Your task to perform on an android device: visit the assistant section in the google photos Image 0: 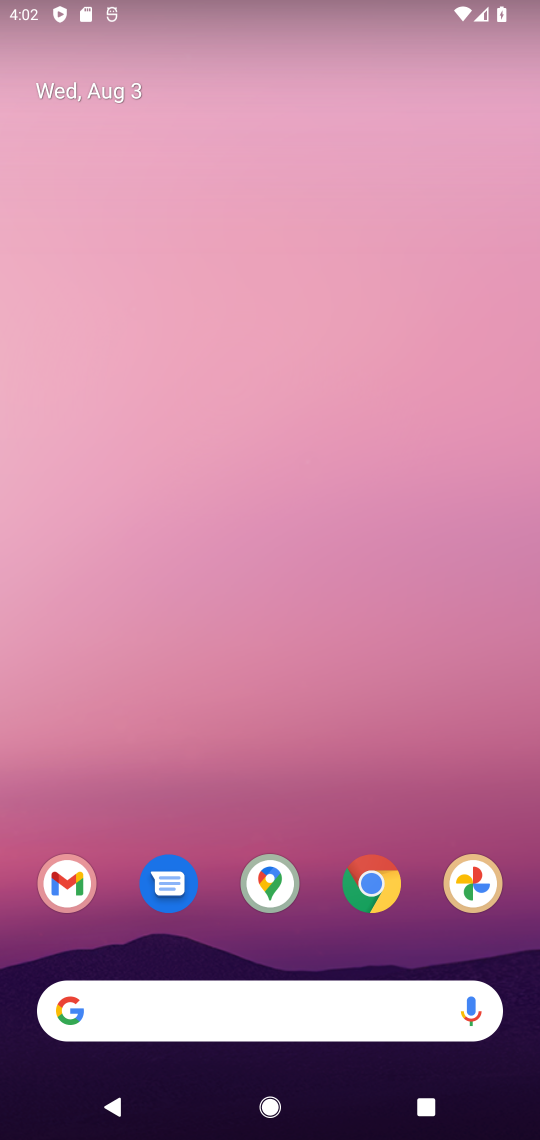
Step 0: click (475, 893)
Your task to perform on an android device: visit the assistant section in the google photos Image 1: 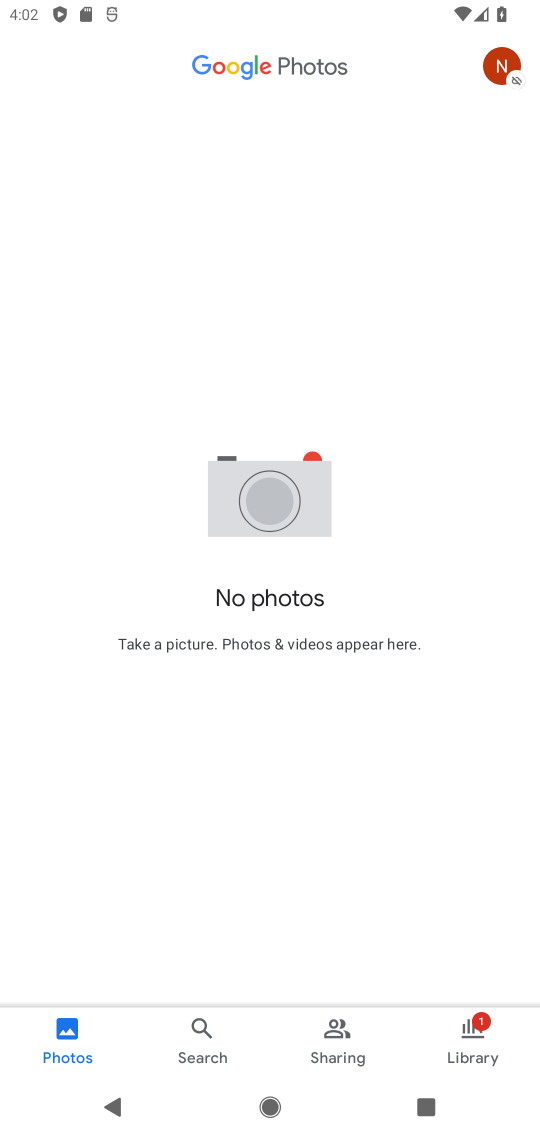
Step 1: click (502, 71)
Your task to perform on an android device: visit the assistant section in the google photos Image 2: 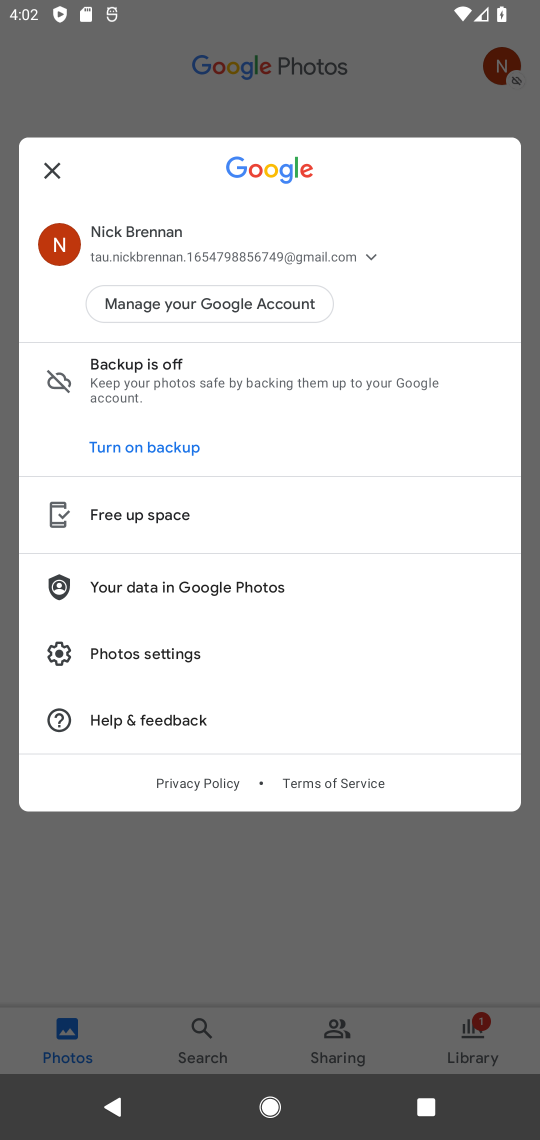
Step 2: click (153, 652)
Your task to perform on an android device: visit the assistant section in the google photos Image 3: 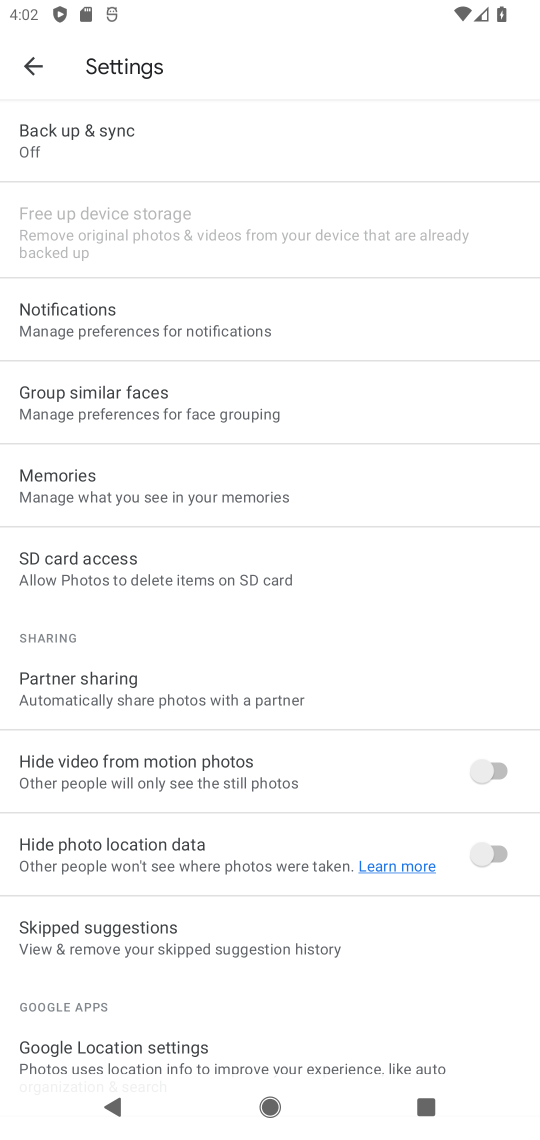
Step 3: task complete